Your task to perform on an android device: turn vacation reply on in the gmail app Image 0: 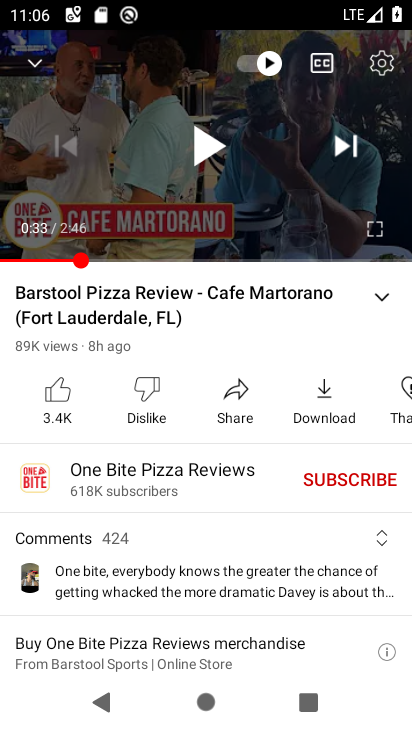
Step 0: press home button
Your task to perform on an android device: turn vacation reply on in the gmail app Image 1: 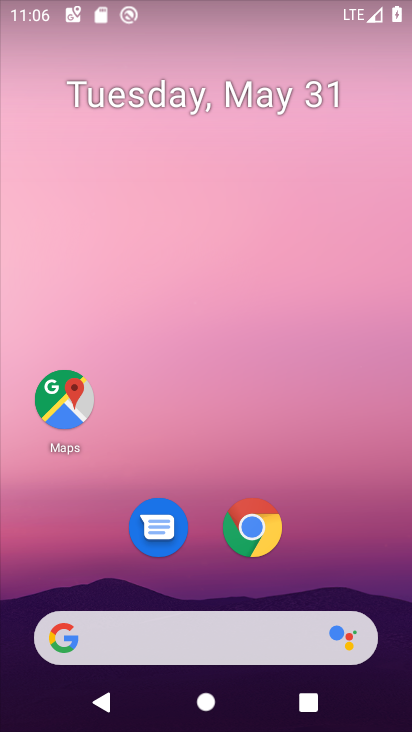
Step 1: drag from (359, 597) to (394, 14)
Your task to perform on an android device: turn vacation reply on in the gmail app Image 2: 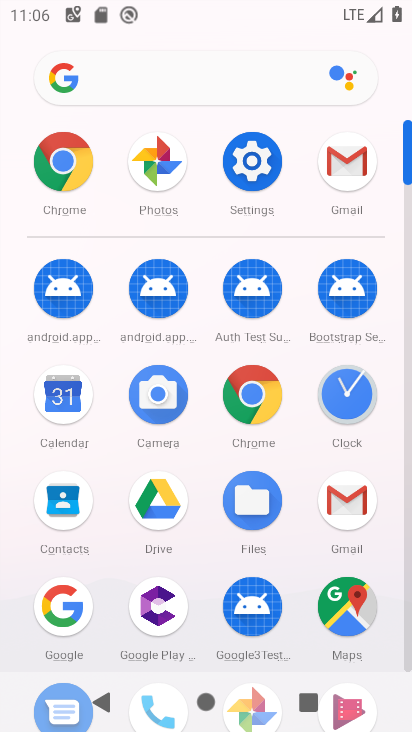
Step 2: click (338, 160)
Your task to perform on an android device: turn vacation reply on in the gmail app Image 3: 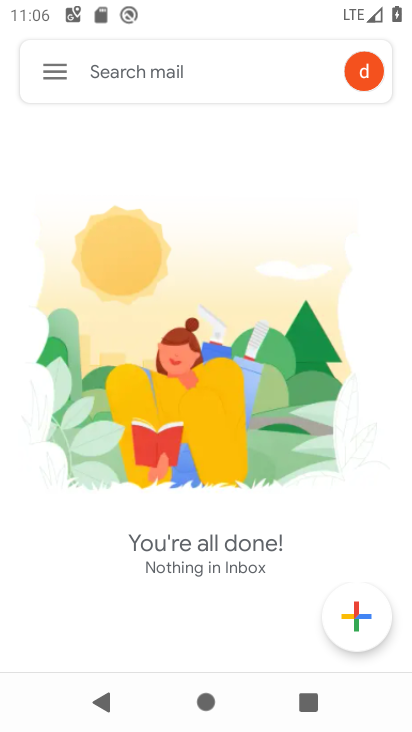
Step 3: click (50, 74)
Your task to perform on an android device: turn vacation reply on in the gmail app Image 4: 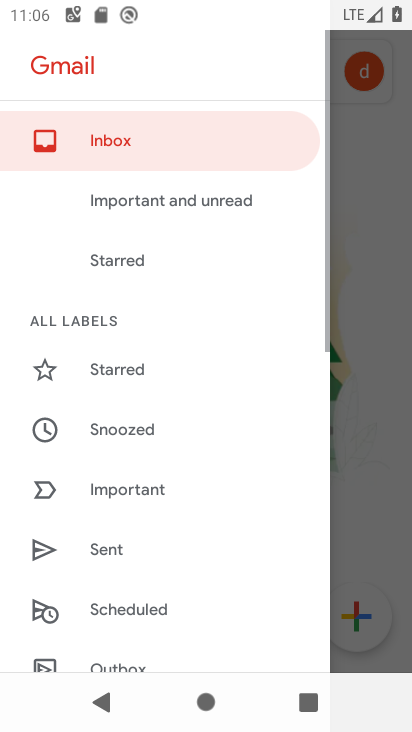
Step 4: drag from (200, 603) to (218, 105)
Your task to perform on an android device: turn vacation reply on in the gmail app Image 5: 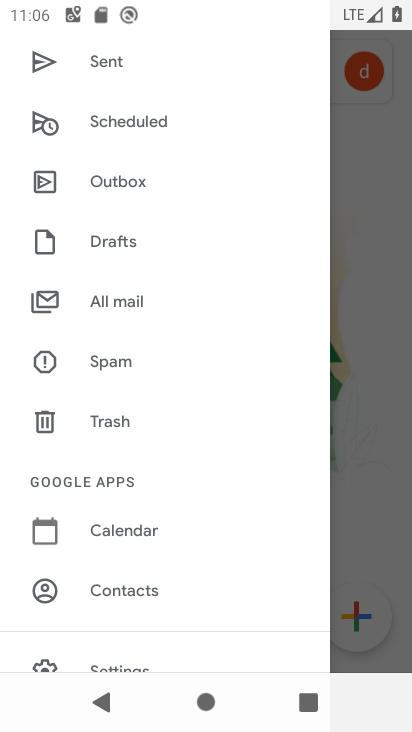
Step 5: drag from (196, 526) to (184, 180)
Your task to perform on an android device: turn vacation reply on in the gmail app Image 6: 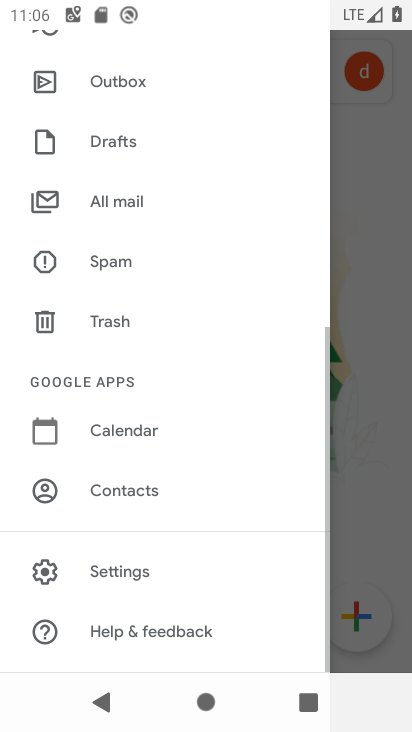
Step 6: click (130, 573)
Your task to perform on an android device: turn vacation reply on in the gmail app Image 7: 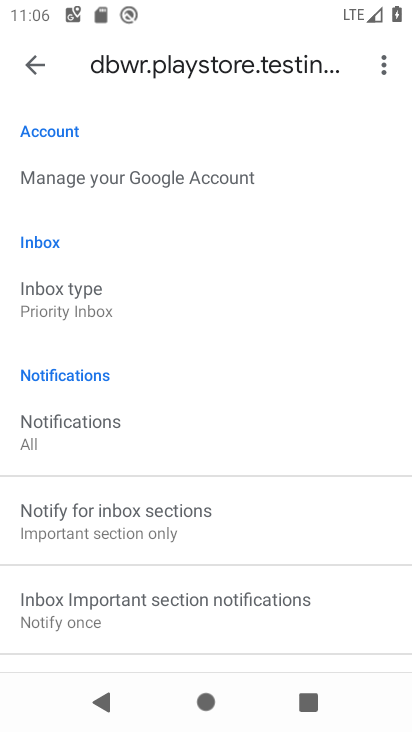
Step 7: drag from (259, 553) to (231, 162)
Your task to perform on an android device: turn vacation reply on in the gmail app Image 8: 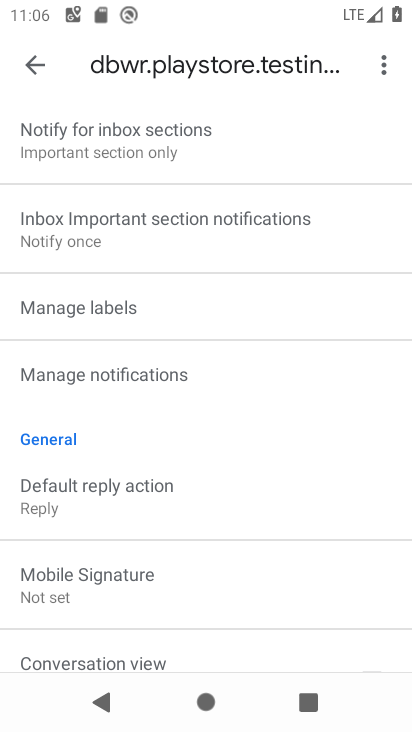
Step 8: drag from (234, 545) to (227, 241)
Your task to perform on an android device: turn vacation reply on in the gmail app Image 9: 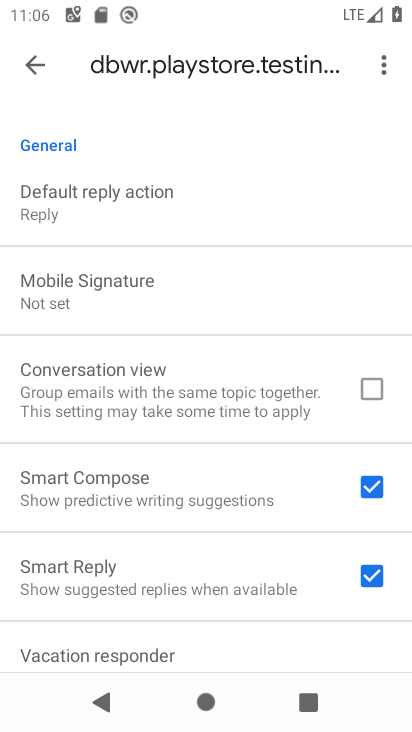
Step 9: drag from (225, 524) to (203, 260)
Your task to perform on an android device: turn vacation reply on in the gmail app Image 10: 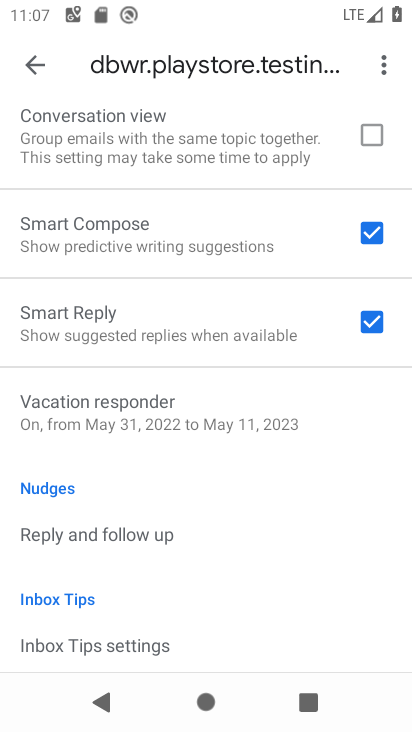
Step 10: click (139, 420)
Your task to perform on an android device: turn vacation reply on in the gmail app Image 11: 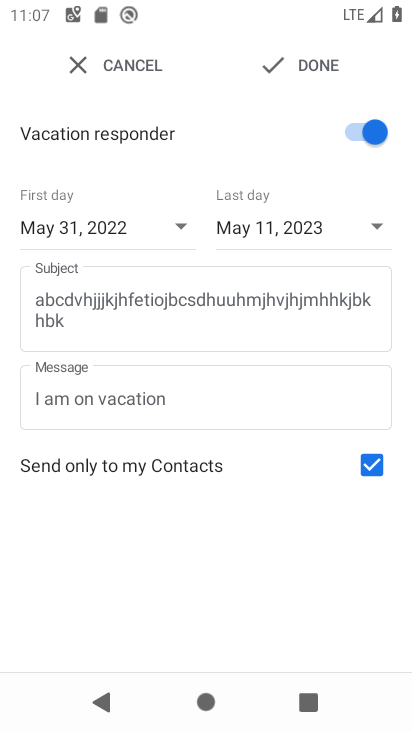
Step 11: click (316, 60)
Your task to perform on an android device: turn vacation reply on in the gmail app Image 12: 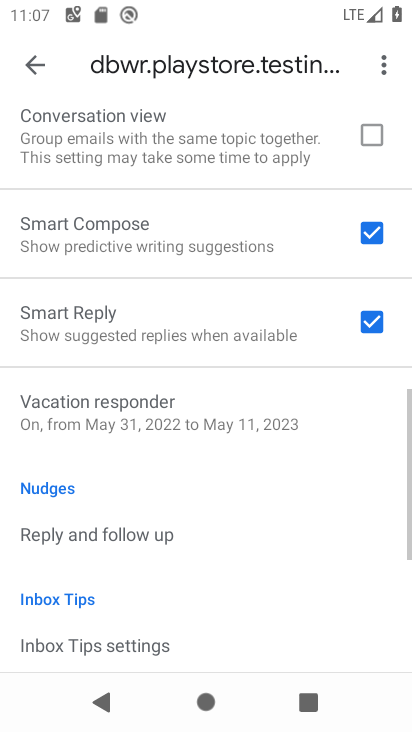
Step 12: task complete